Your task to perform on an android device: Open Youtube and go to the subscriptions tab Image 0: 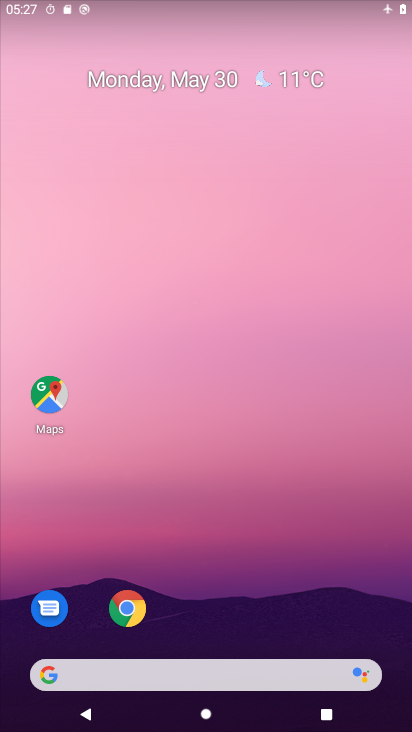
Step 0: drag from (299, 417) to (162, 17)
Your task to perform on an android device: Open Youtube and go to the subscriptions tab Image 1: 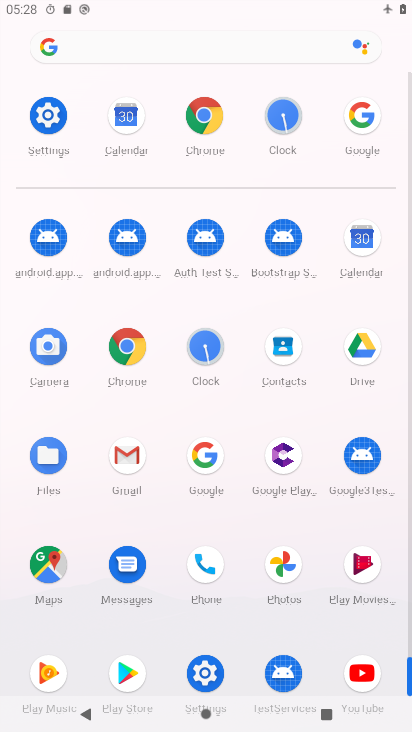
Step 1: click (382, 683)
Your task to perform on an android device: Open Youtube and go to the subscriptions tab Image 2: 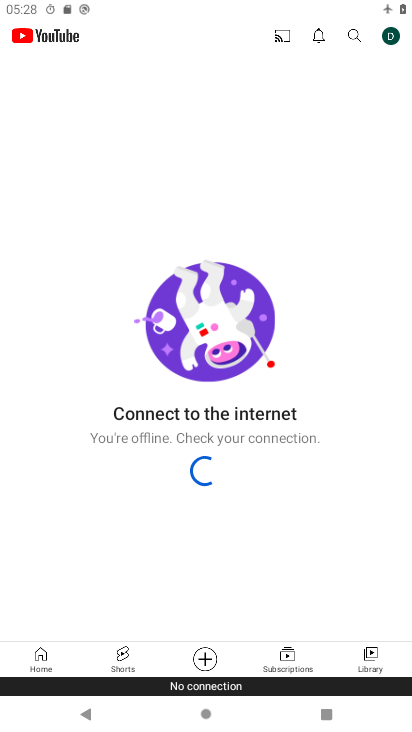
Step 2: click (289, 652)
Your task to perform on an android device: Open Youtube and go to the subscriptions tab Image 3: 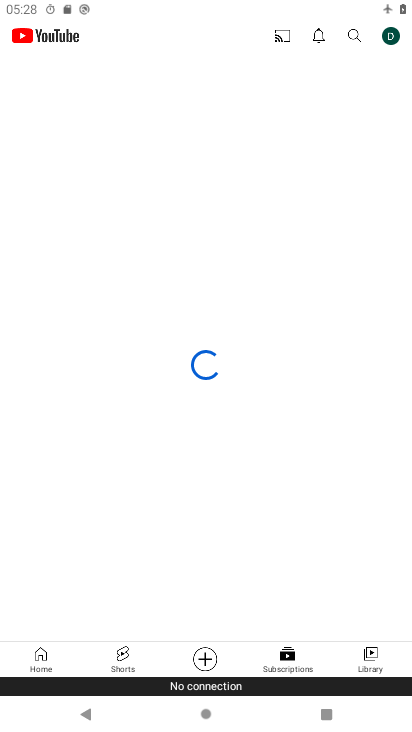
Step 3: task complete